Your task to perform on an android device: Open calendar and show me the third week of next month Image 0: 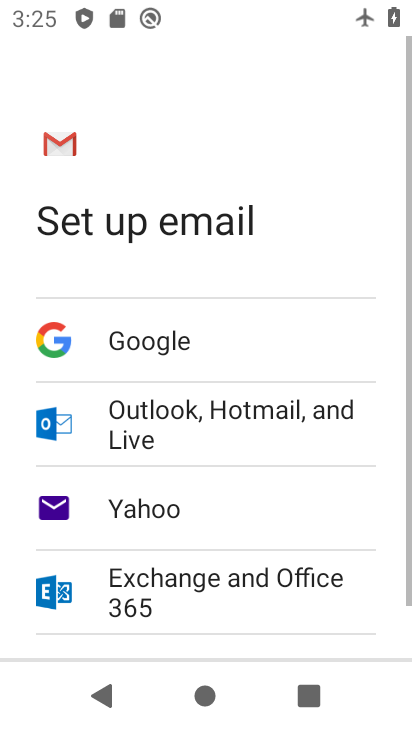
Step 0: press home button
Your task to perform on an android device: Open calendar and show me the third week of next month Image 1: 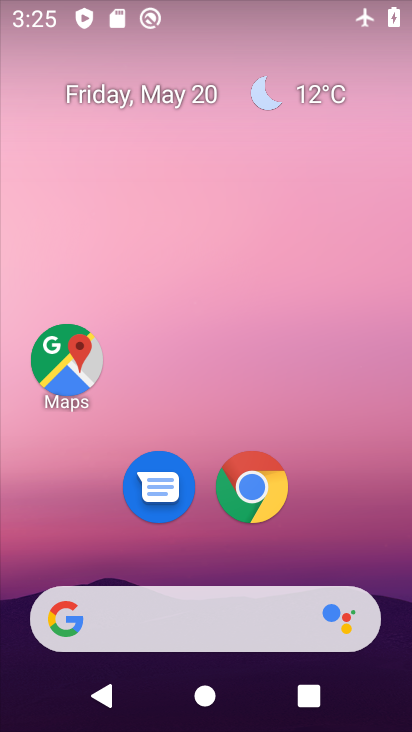
Step 1: drag from (299, 546) to (302, 93)
Your task to perform on an android device: Open calendar and show me the third week of next month Image 2: 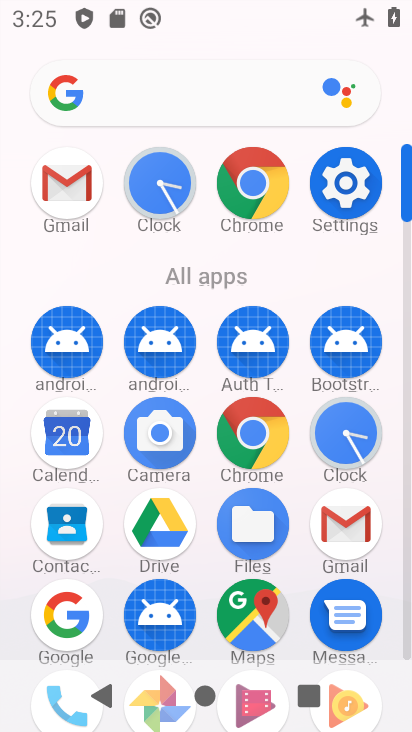
Step 2: click (59, 438)
Your task to perform on an android device: Open calendar and show me the third week of next month Image 3: 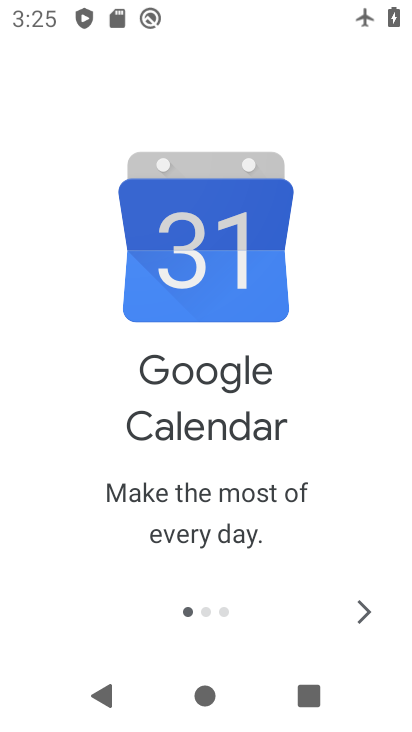
Step 3: click (363, 627)
Your task to perform on an android device: Open calendar and show me the third week of next month Image 4: 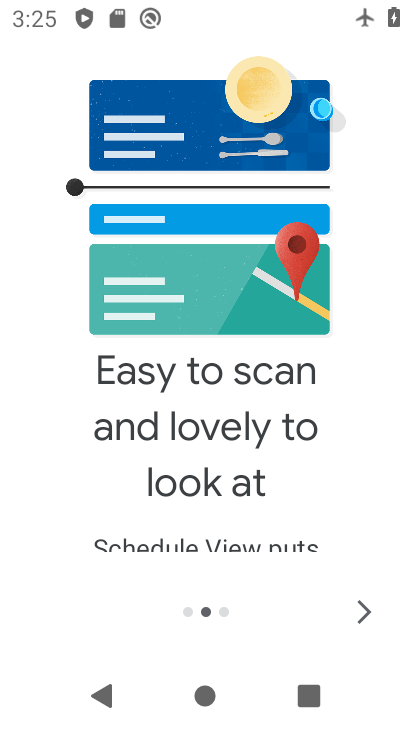
Step 4: click (356, 619)
Your task to perform on an android device: Open calendar and show me the third week of next month Image 5: 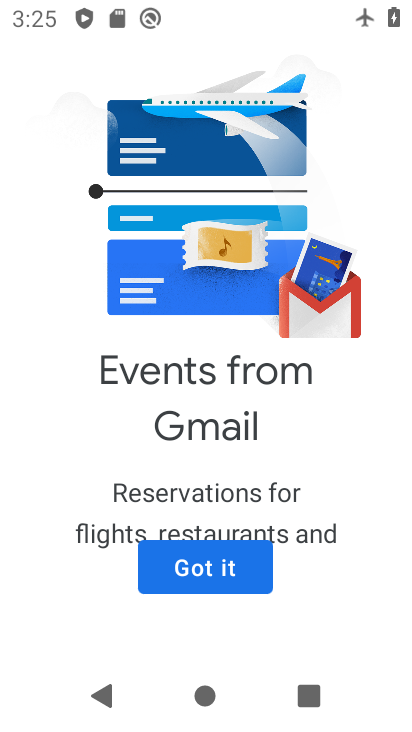
Step 5: click (244, 565)
Your task to perform on an android device: Open calendar and show me the third week of next month Image 6: 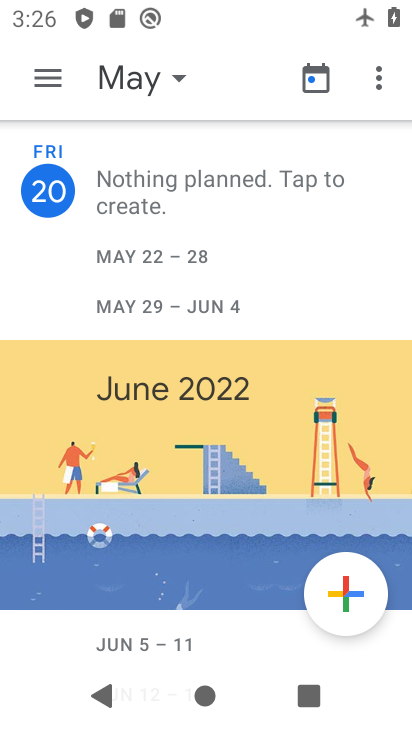
Step 6: click (61, 87)
Your task to perform on an android device: Open calendar and show me the third week of next month Image 7: 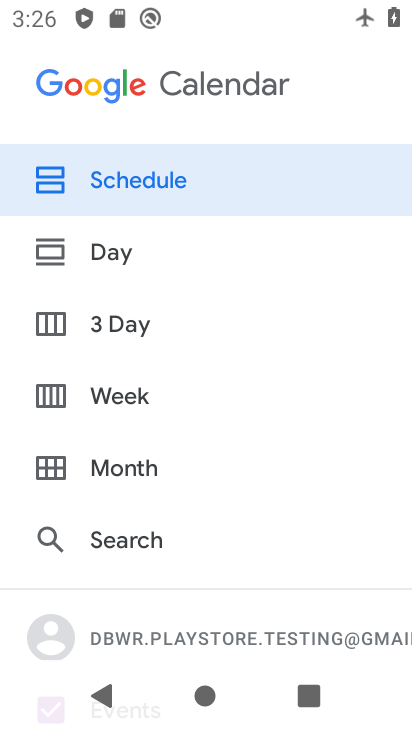
Step 7: click (101, 406)
Your task to perform on an android device: Open calendar and show me the third week of next month Image 8: 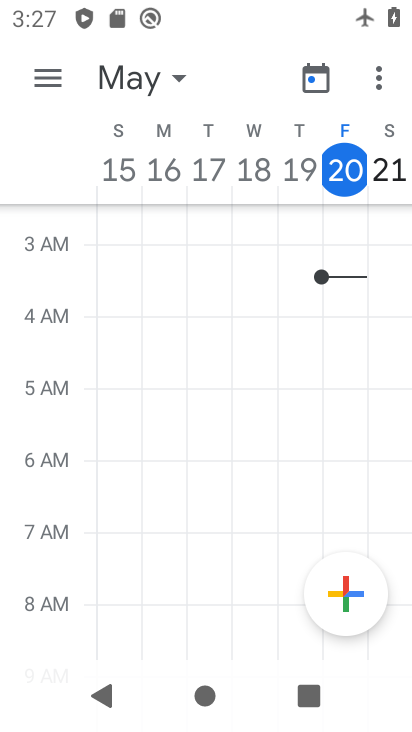
Step 8: click (122, 78)
Your task to perform on an android device: Open calendar and show me the third week of next month Image 9: 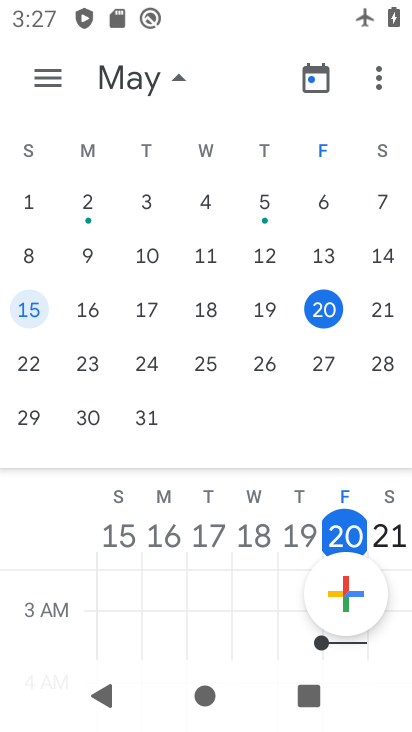
Step 9: click (48, 81)
Your task to perform on an android device: Open calendar and show me the third week of next month Image 10: 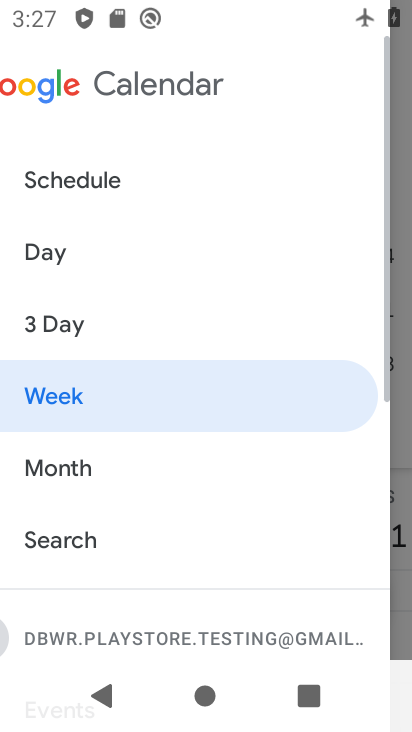
Step 10: click (52, 87)
Your task to perform on an android device: Open calendar and show me the third week of next month Image 11: 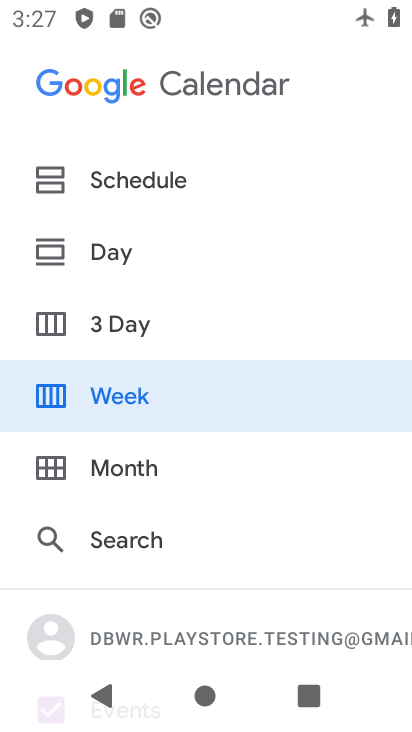
Step 11: click (122, 397)
Your task to perform on an android device: Open calendar and show me the third week of next month Image 12: 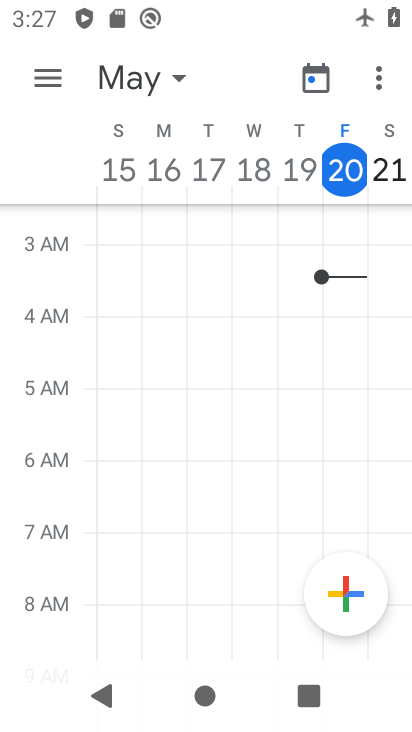
Step 12: click (133, 89)
Your task to perform on an android device: Open calendar and show me the third week of next month Image 13: 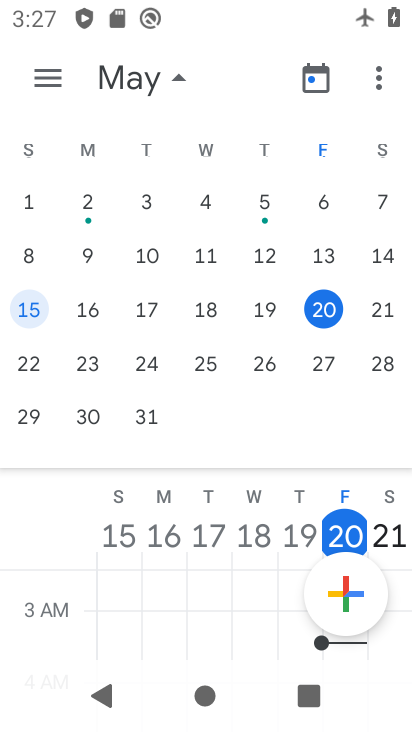
Step 13: drag from (319, 239) to (6, 291)
Your task to perform on an android device: Open calendar and show me the third week of next month Image 14: 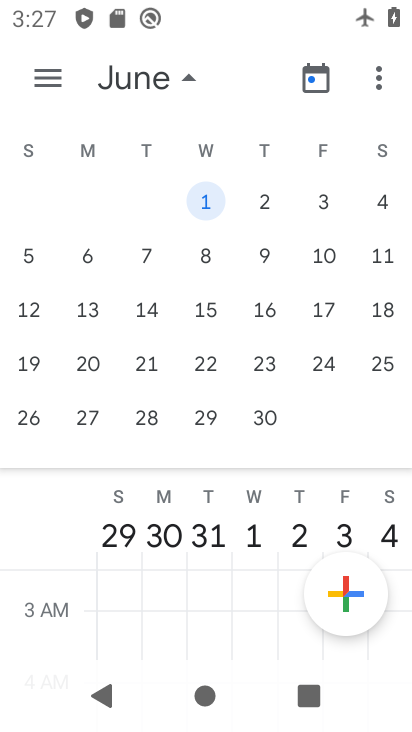
Step 14: click (34, 303)
Your task to perform on an android device: Open calendar and show me the third week of next month Image 15: 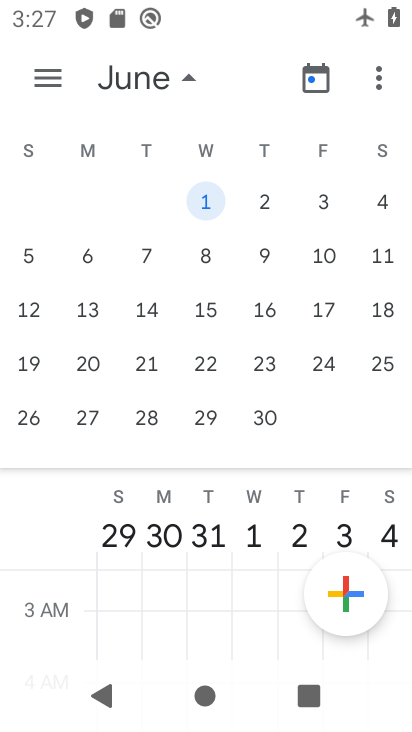
Step 15: click (34, 303)
Your task to perform on an android device: Open calendar and show me the third week of next month Image 16: 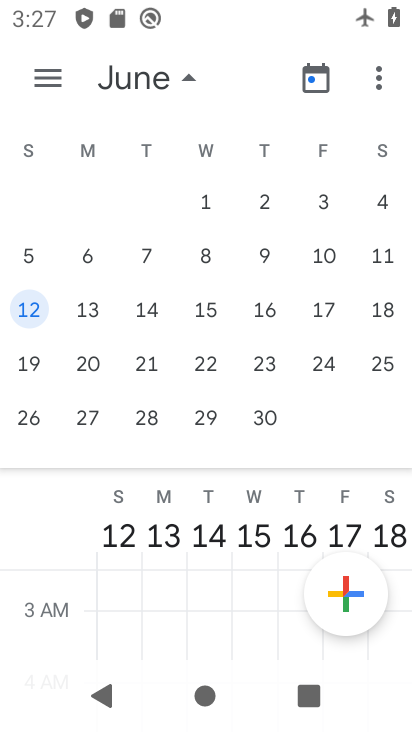
Step 16: task complete